Your task to perform on an android device: turn off data saver in the chrome app Image 0: 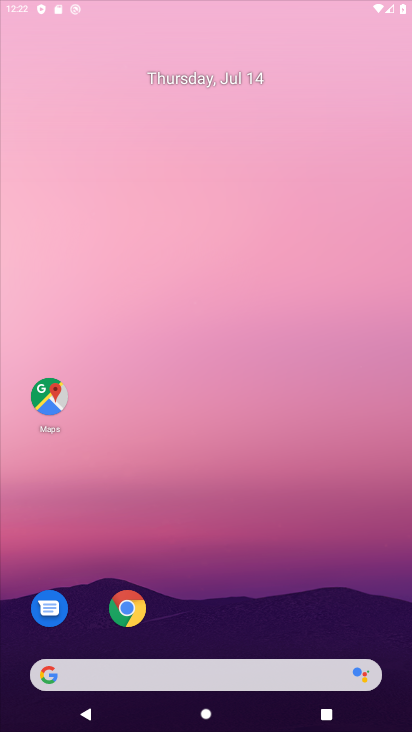
Step 0: click (162, 244)
Your task to perform on an android device: turn off data saver in the chrome app Image 1: 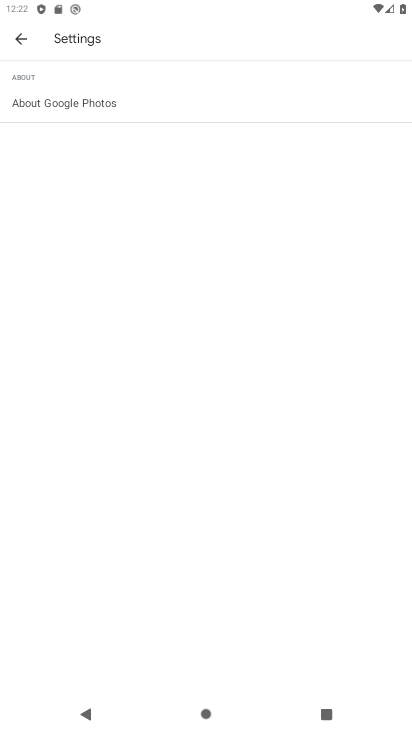
Step 1: drag from (146, 626) to (194, 250)
Your task to perform on an android device: turn off data saver in the chrome app Image 2: 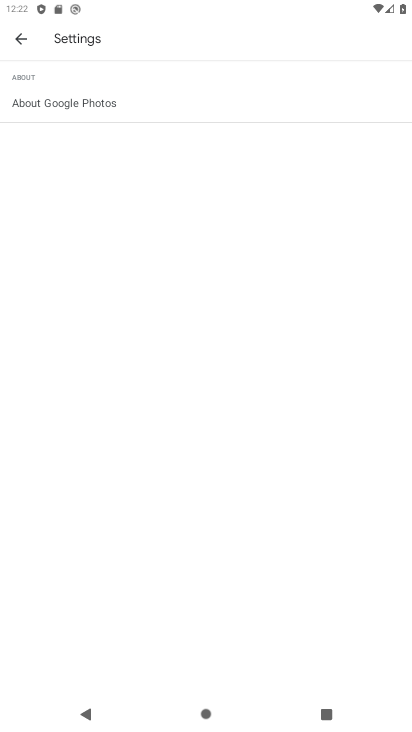
Step 2: press home button
Your task to perform on an android device: turn off data saver in the chrome app Image 3: 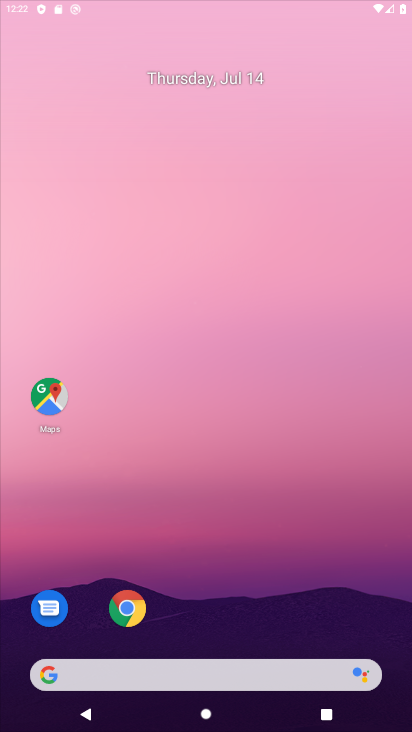
Step 3: drag from (203, 531) to (198, 152)
Your task to perform on an android device: turn off data saver in the chrome app Image 4: 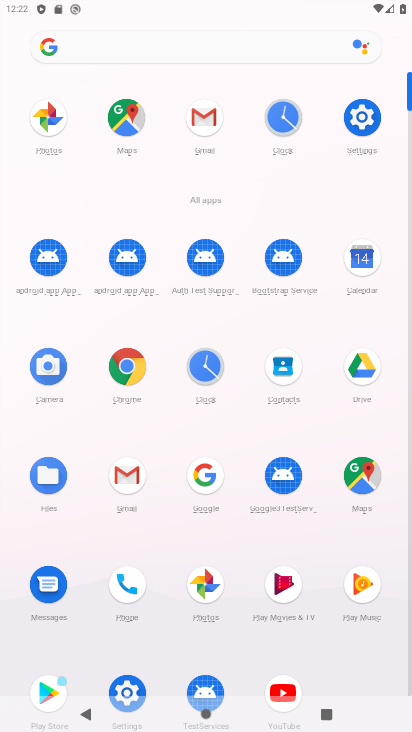
Step 4: click (126, 361)
Your task to perform on an android device: turn off data saver in the chrome app Image 5: 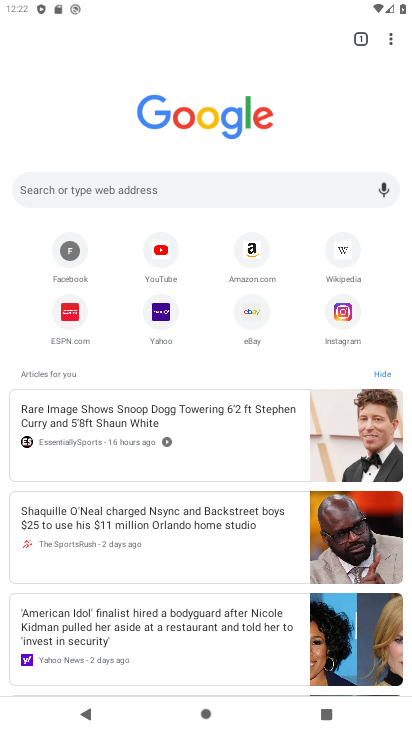
Step 5: click (387, 39)
Your task to perform on an android device: turn off data saver in the chrome app Image 6: 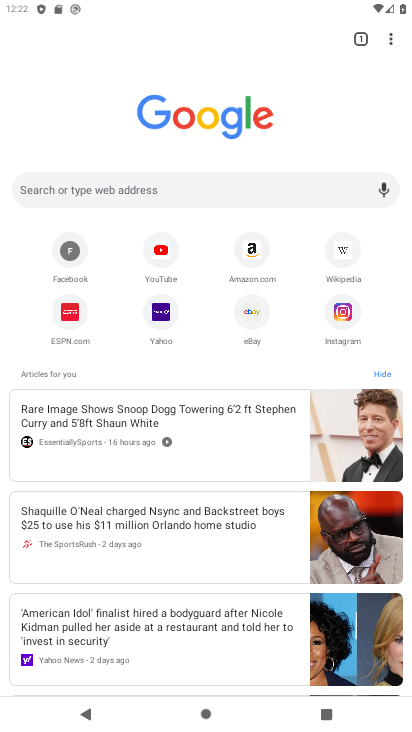
Step 6: drag from (387, 43) to (277, 326)
Your task to perform on an android device: turn off data saver in the chrome app Image 7: 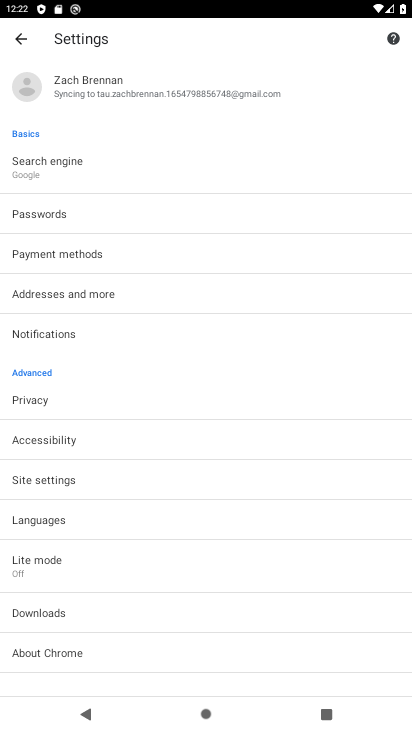
Step 7: drag from (129, 584) to (175, 146)
Your task to perform on an android device: turn off data saver in the chrome app Image 8: 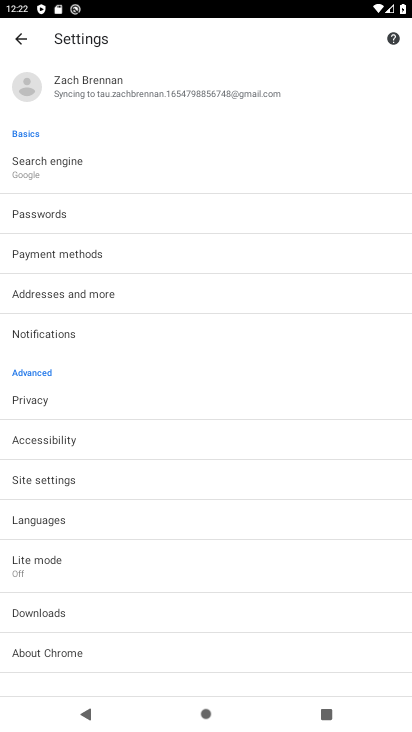
Step 8: click (77, 552)
Your task to perform on an android device: turn off data saver in the chrome app Image 9: 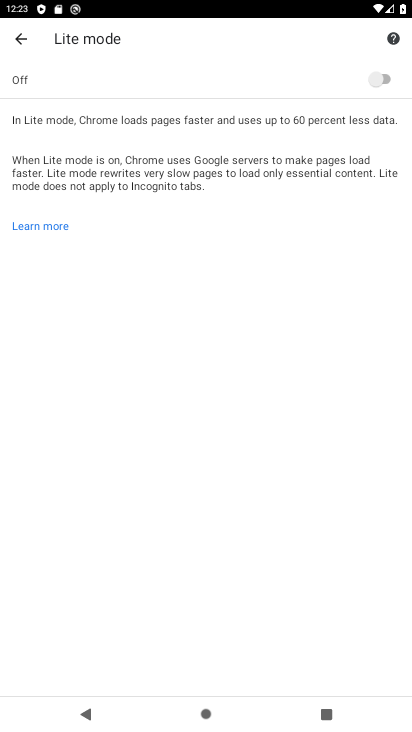
Step 9: task complete